Your task to perform on an android device: How do I get to the nearest Walmart? Image 0: 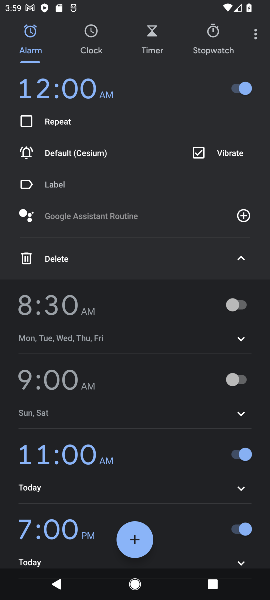
Step 0: press home button
Your task to perform on an android device: How do I get to the nearest Walmart? Image 1: 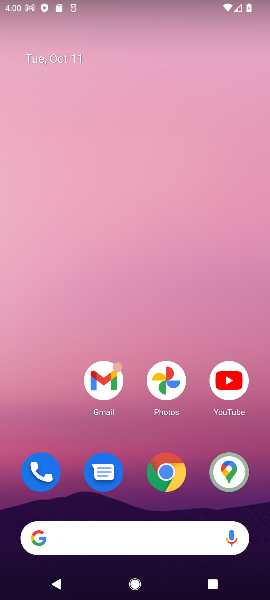
Step 1: click (117, 542)
Your task to perform on an android device: How do I get to the nearest Walmart? Image 2: 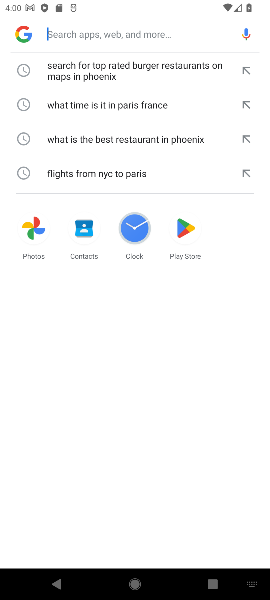
Step 2: type "How do I get to the nearest Walmart?"
Your task to perform on an android device: How do I get to the nearest Walmart? Image 3: 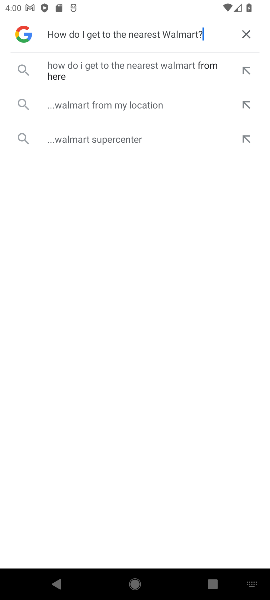
Step 3: click (167, 69)
Your task to perform on an android device: How do I get to the nearest Walmart? Image 4: 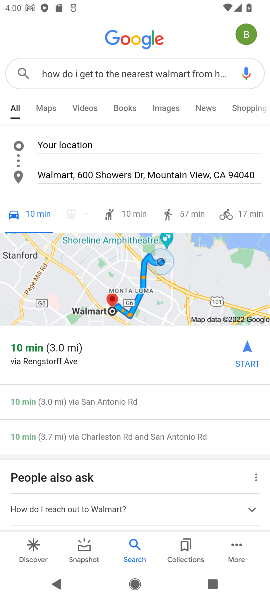
Step 4: task complete